Your task to perform on an android device: Is it going to rain this weekend? Image 0: 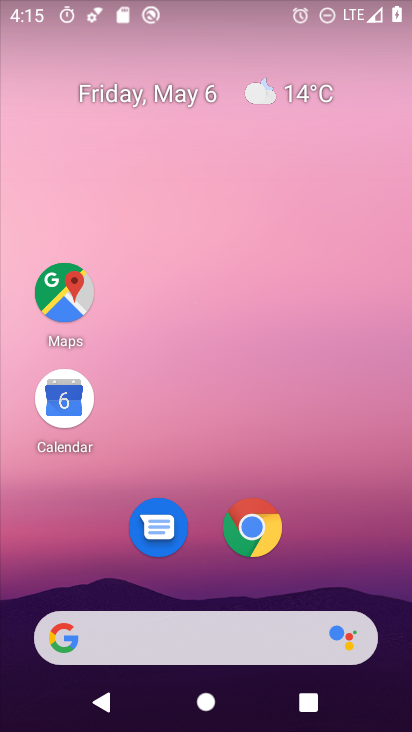
Step 0: drag from (339, 556) to (300, 152)
Your task to perform on an android device: Is it going to rain this weekend? Image 1: 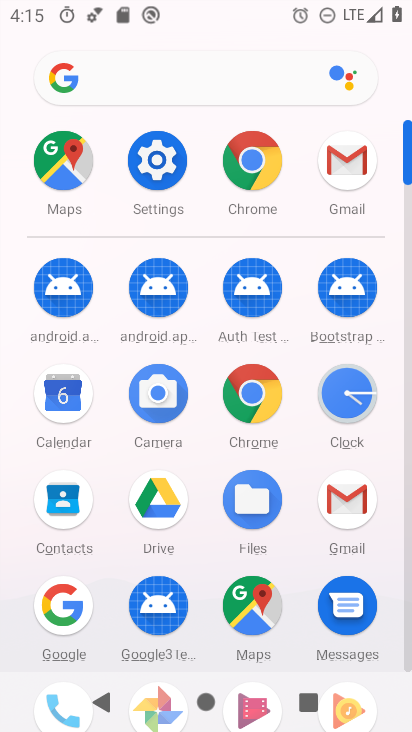
Step 1: press home button
Your task to perform on an android device: Is it going to rain this weekend? Image 2: 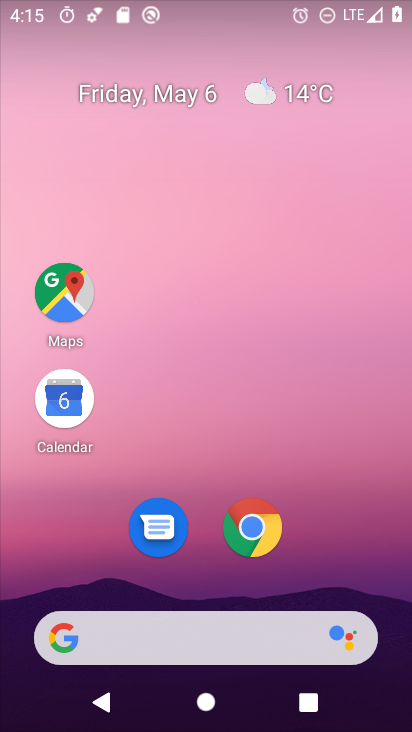
Step 2: click (304, 91)
Your task to perform on an android device: Is it going to rain this weekend? Image 3: 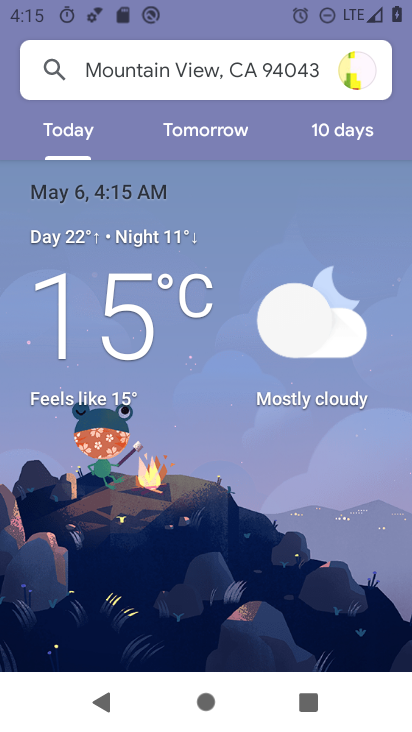
Step 3: click (350, 138)
Your task to perform on an android device: Is it going to rain this weekend? Image 4: 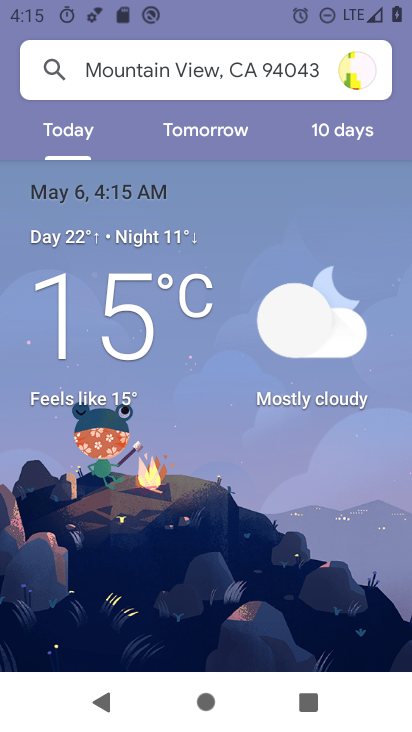
Step 4: click (357, 123)
Your task to perform on an android device: Is it going to rain this weekend? Image 5: 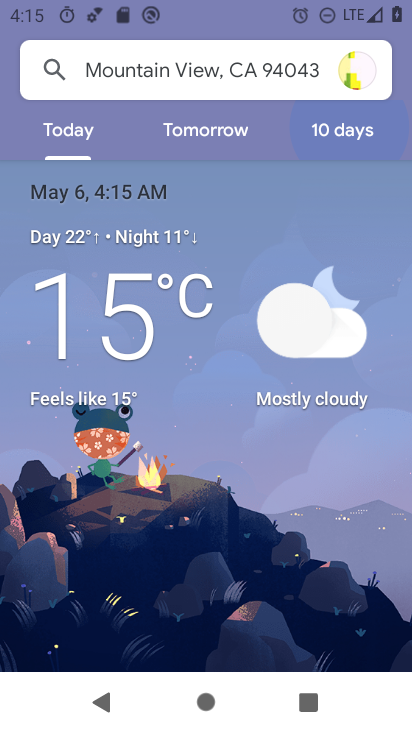
Step 5: click (359, 128)
Your task to perform on an android device: Is it going to rain this weekend? Image 6: 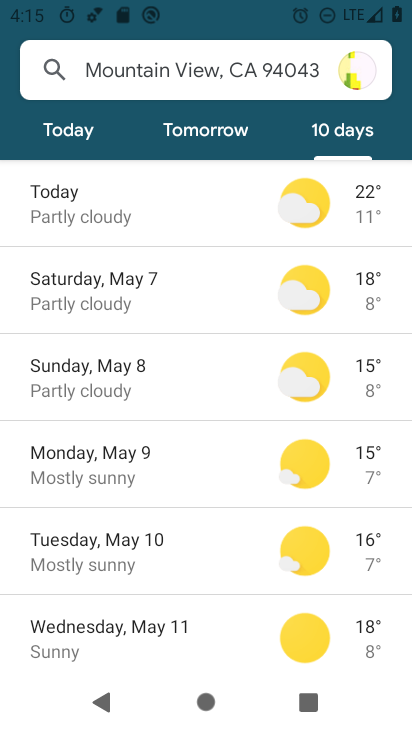
Step 6: task complete